Your task to perform on an android device: see creations saved in the google photos Image 0: 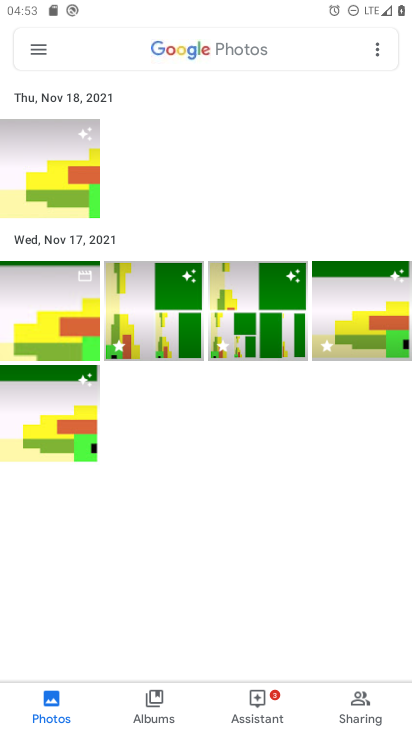
Step 0: press back button
Your task to perform on an android device: see creations saved in the google photos Image 1: 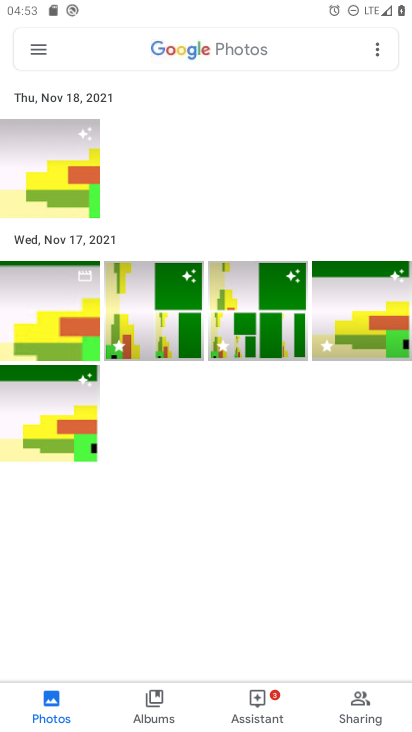
Step 1: press back button
Your task to perform on an android device: see creations saved in the google photos Image 2: 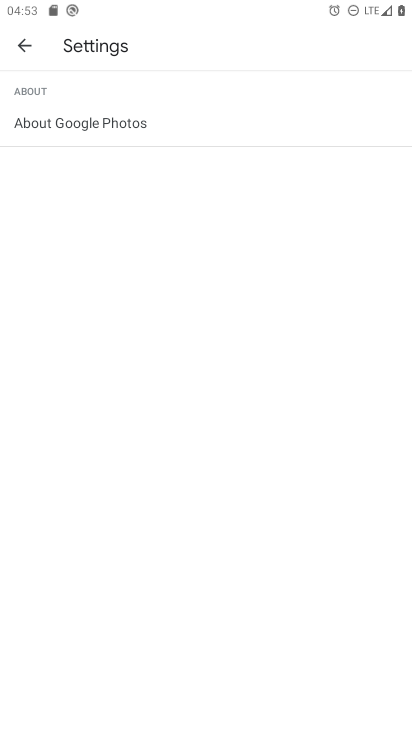
Step 2: press back button
Your task to perform on an android device: see creations saved in the google photos Image 3: 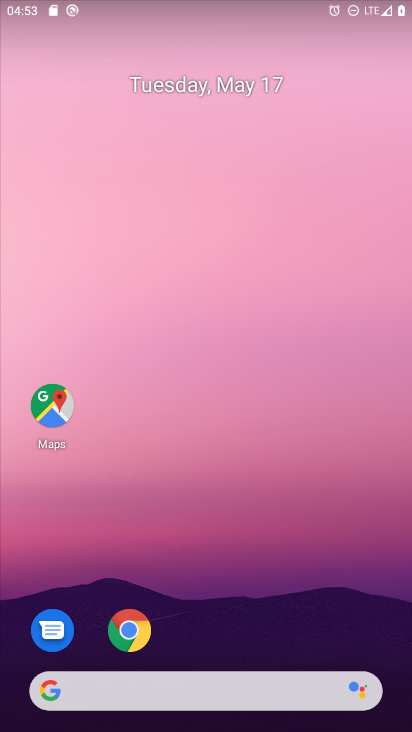
Step 3: drag from (235, 609) to (297, 75)
Your task to perform on an android device: see creations saved in the google photos Image 4: 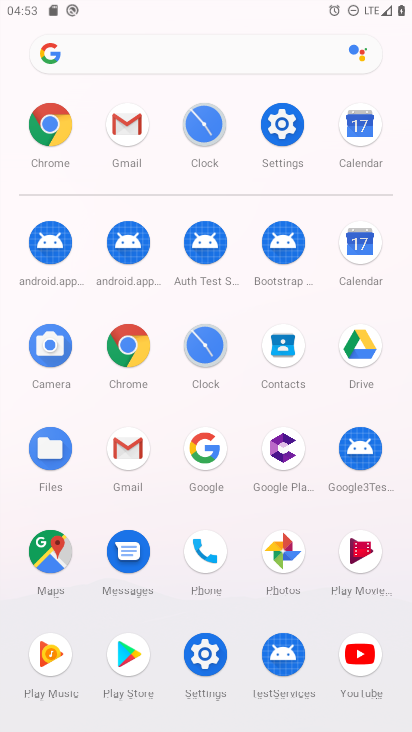
Step 4: click (271, 552)
Your task to perform on an android device: see creations saved in the google photos Image 5: 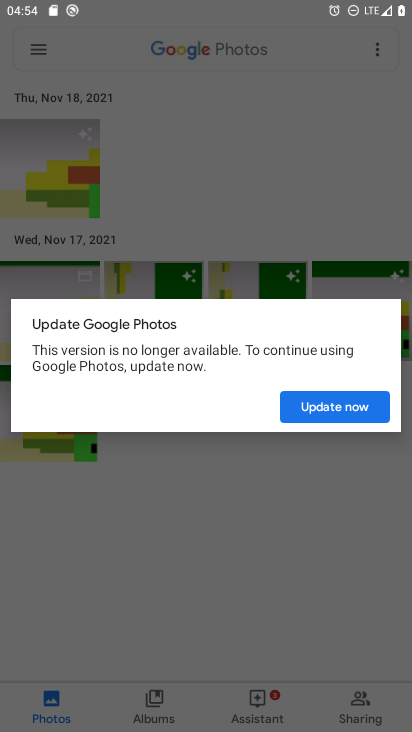
Step 5: click (340, 405)
Your task to perform on an android device: see creations saved in the google photos Image 6: 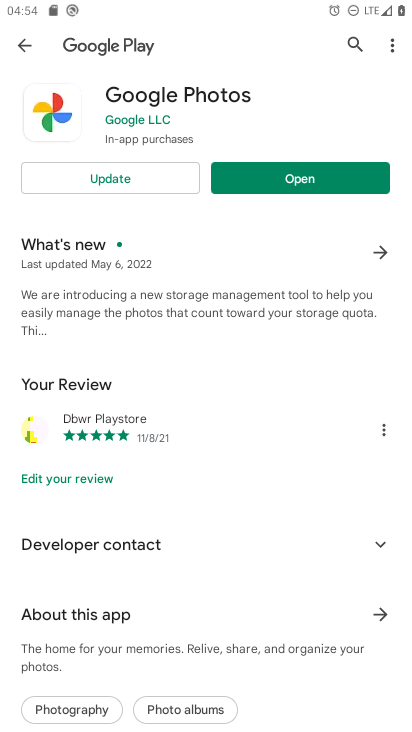
Step 6: click (270, 164)
Your task to perform on an android device: see creations saved in the google photos Image 7: 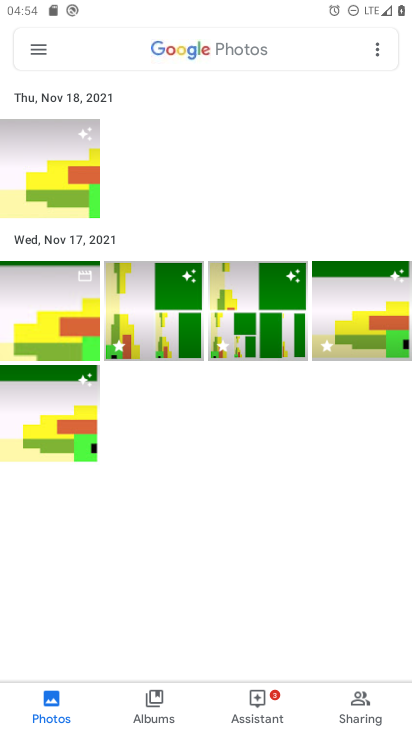
Step 7: click (31, 44)
Your task to perform on an android device: see creations saved in the google photos Image 8: 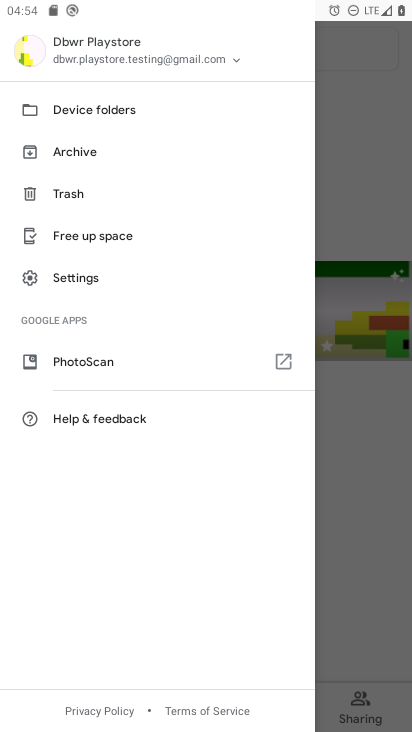
Step 8: click (85, 142)
Your task to perform on an android device: see creations saved in the google photos Image 9: 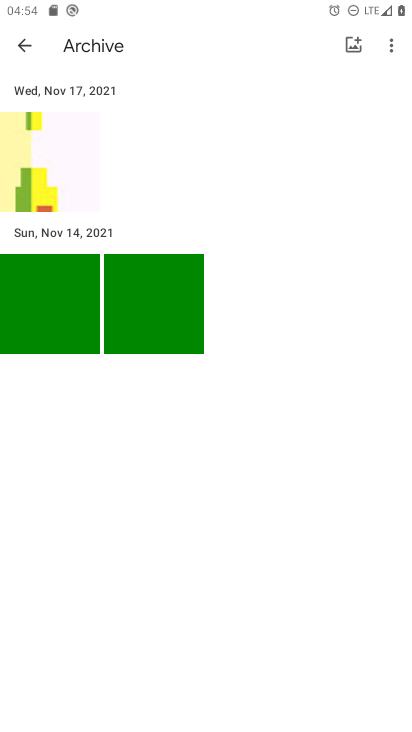
Step 9: task complete